Your task to perform on an android device: See recent photos Image 0: 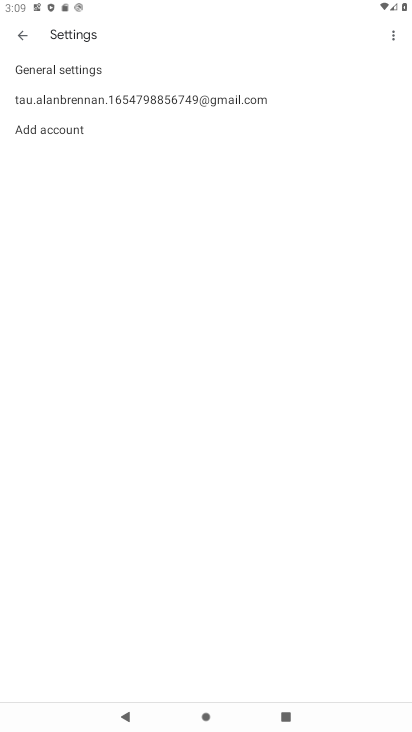
Step 0: press home button
Your task to perform on an android device: See recent photos Image 1: 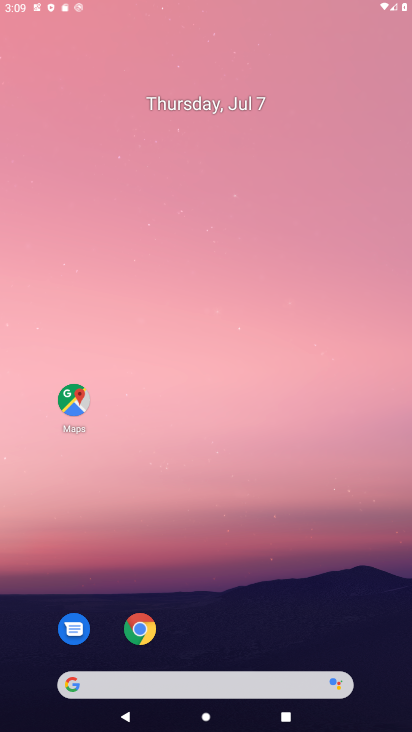
Step 1: drag from (250, 581) to (267, 192)
Your task to perform on an android device: See recent photos Image 2: 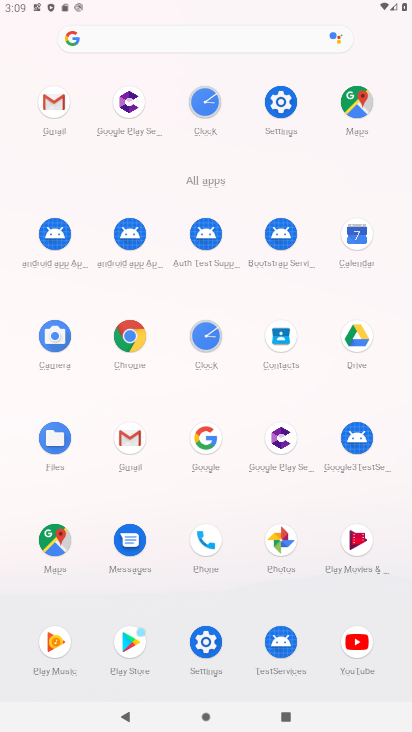
Step 2: click (281, 534)
Your task to perform on an android device: See recent photos Image 3: 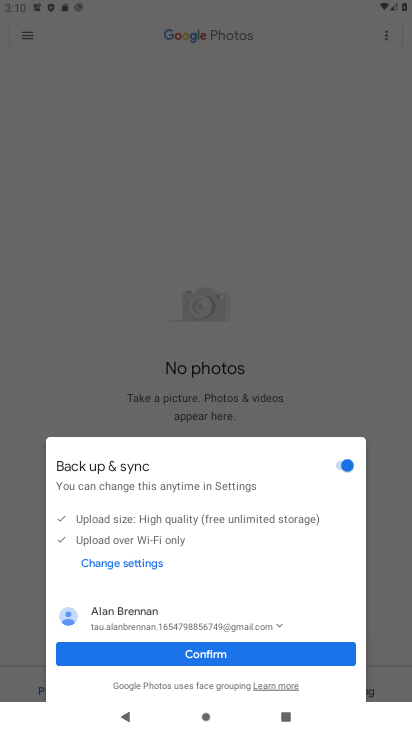
Step 3: click (274, 320)
Your task to perform on an android device: See recent photos Image 4: 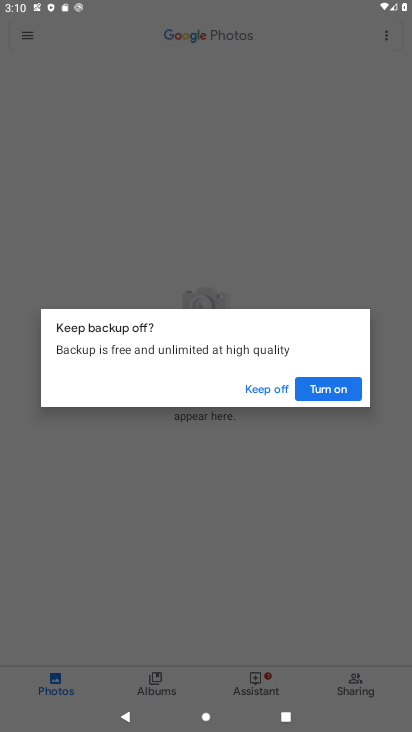
Step 4: click (272, 385)
Your task to perform on an android device: See recent photos Image 5: 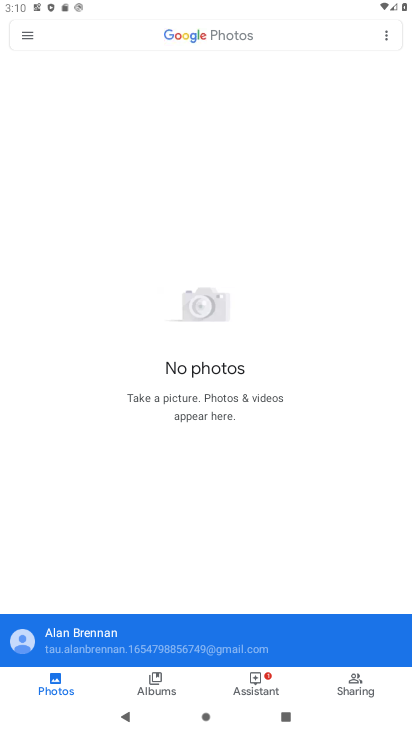
Step 5: click (166, 679)
Your task to perform on an android device: See recent photos Image 6: 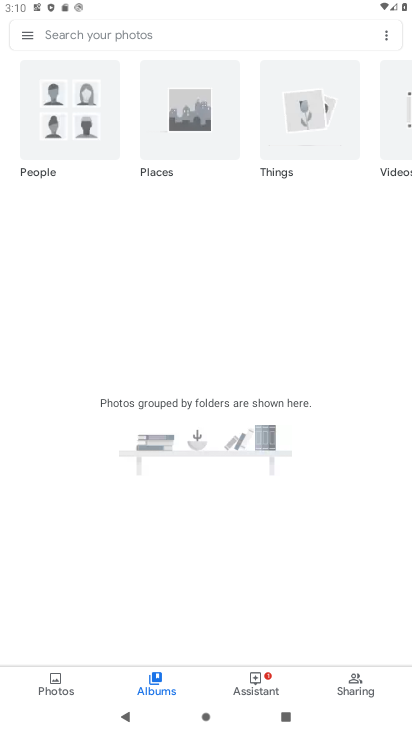
Step 6: task complete